Your task to perform on an android device: allow cookies in the chrome app Image 0: 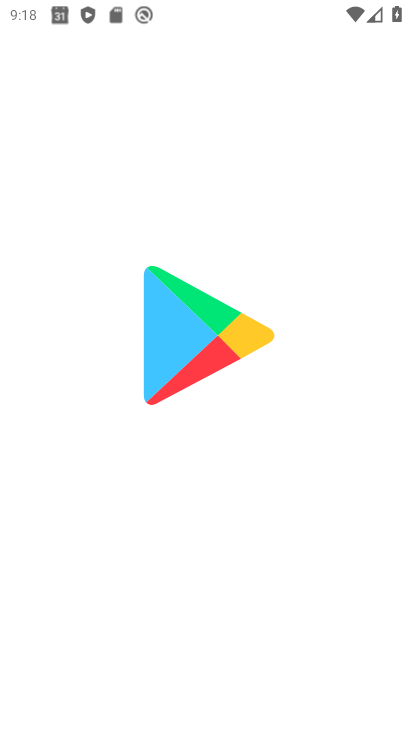
Step 0: click (234, 537)
Your task to perform on an android device: allow cookies in the chrome app Image 1: 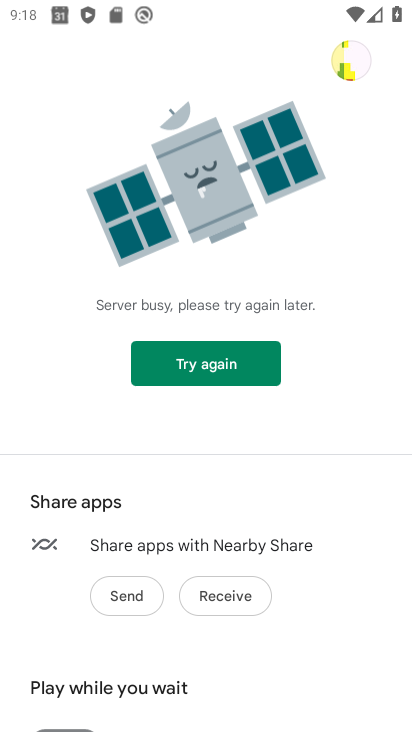
Step 1: press home button
Your task to perform on an android device: allow cookies in the chrome app Image 2: 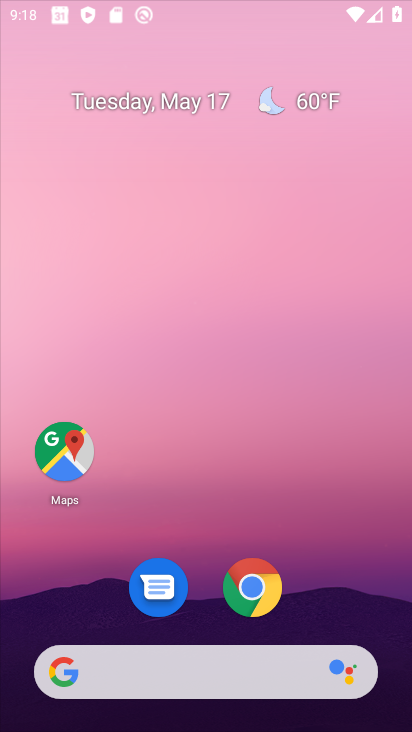
Step 2: drag from (320, 567) to (294, 267)
Your task to perform on an android device: allow cookies in the chrome app Image 3: 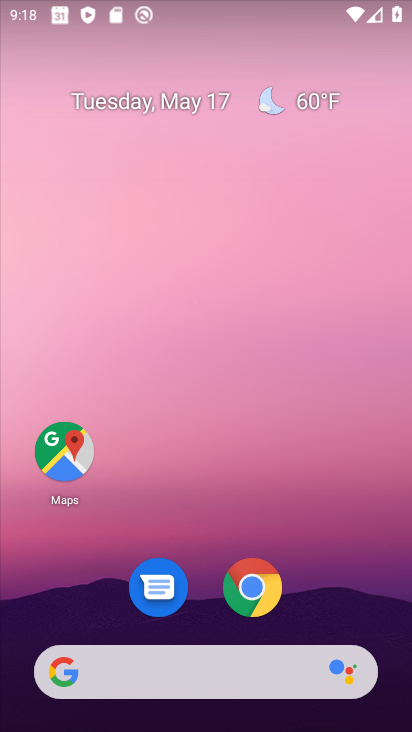
Step 3: drag from (264, 503) to (258, 187)
Your task to perform on an android device: allow cookies in the chrome app Image 4: 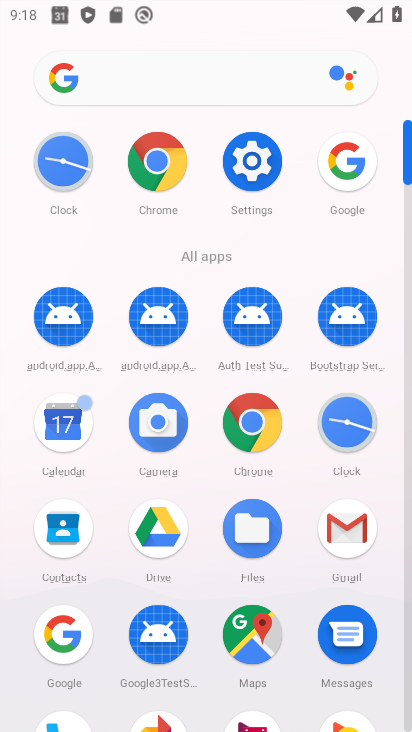
Step 4: click (256, 437)
Your task to perform on an android device: allow cookies in the chrome app Image 5: 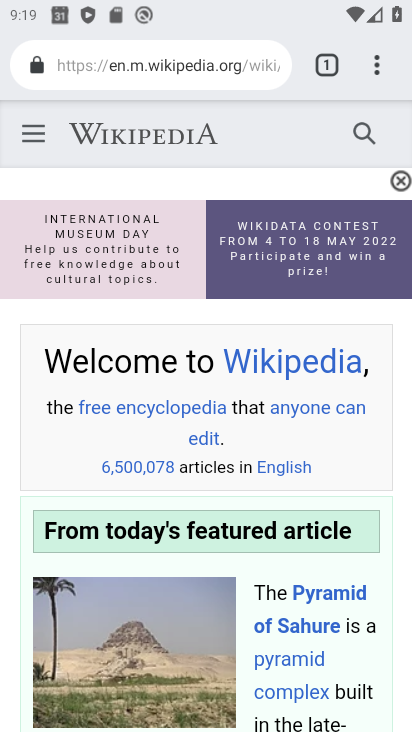
Step 5: click (374, 70)
Your task to perform on an android device: allow cookies in the chrome app Image 6: 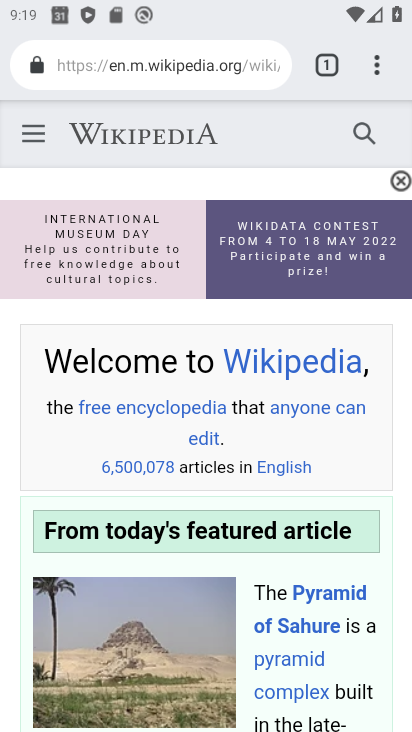
Step 6: click (381, 81)
Your task to perform on an android device: allow cookies in the chrome app Image 7: 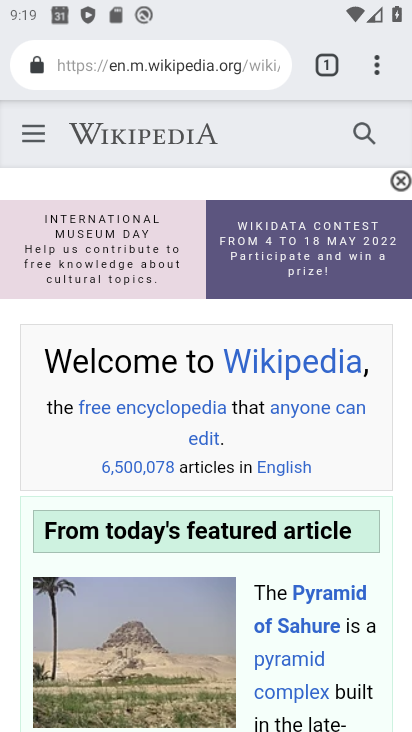
Step 7: click (374, 69)
Your task to perform on an android device: allow cookies in the chrome app Image 8: 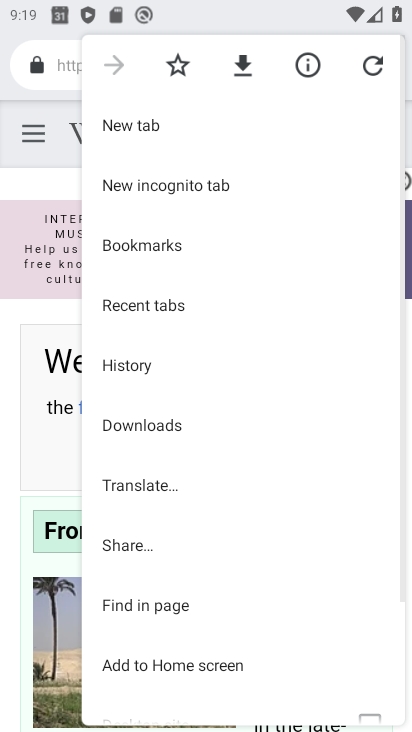
Step 8: drag from (195, 518) to (213, 277)
Your task to perform on an android device: allow cookies in the chrome app Image 9: 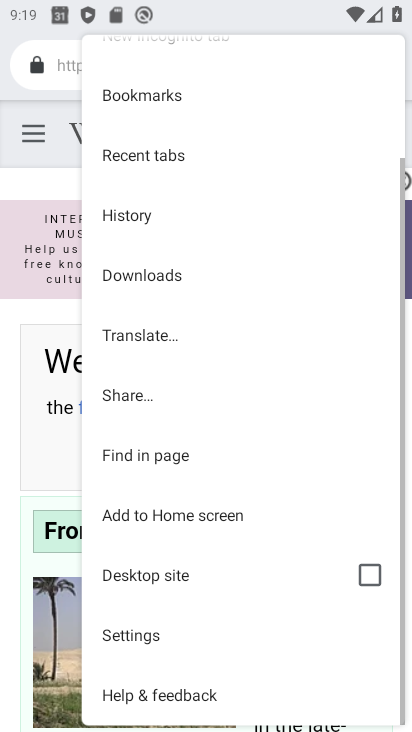
Step 9: click (156, 647)
Your task to perform on an android device: allow cookies in the chrome app Image 10: 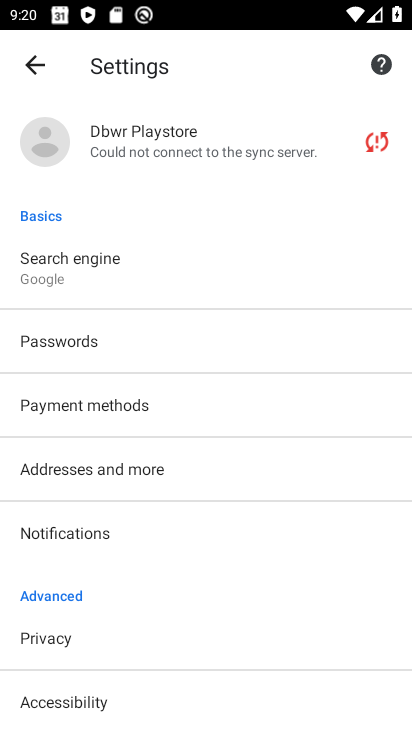
Step 10: drag from (137, 551) to (164, 277)
Your task to perform on an android device: allow cookies in the chrome app Image 11: 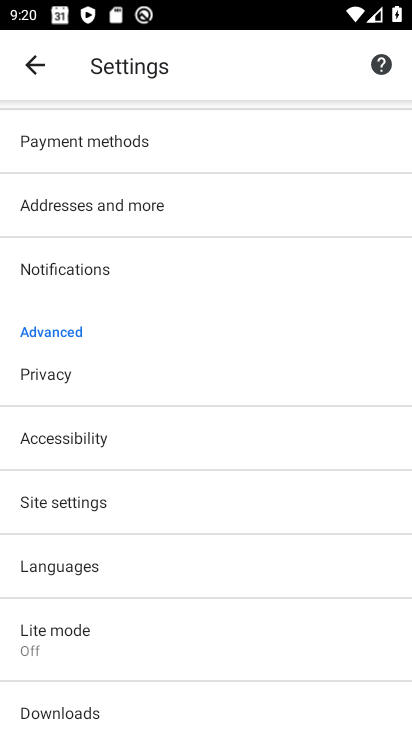
Step 11: drag from (148, 343) to (138, 389)
Your task to perform on an android device: allow cookies in the chrome app Image 12: 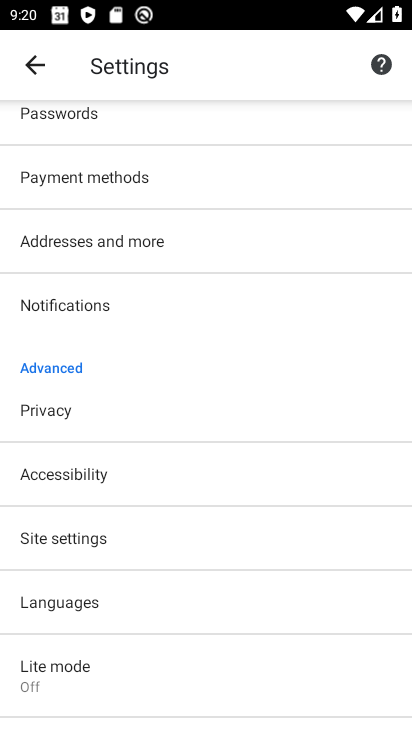
Step 12: click (120, 551)
Your task to perform on an android device: allow cookies in the chrome app Image 13: 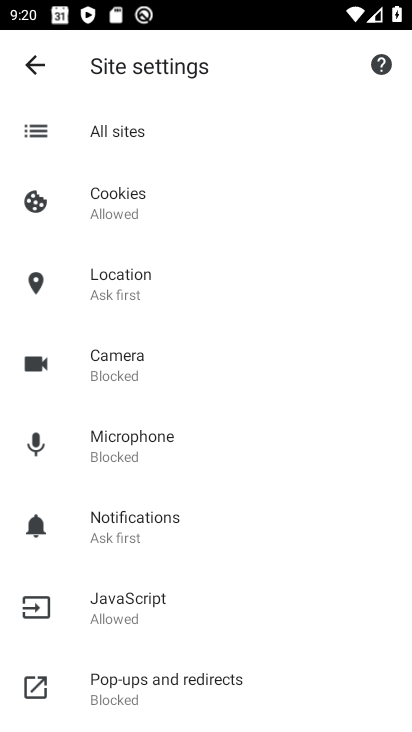
Step 13: click (129, 212)
Your task to perform on an android device: allow cookies in the chrome app Image 14: 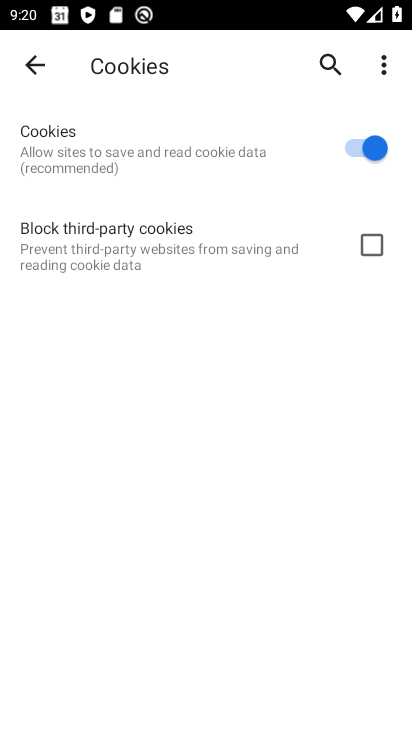
Step 14: task complete